Your task to perform on an android device: check storage Image 0: 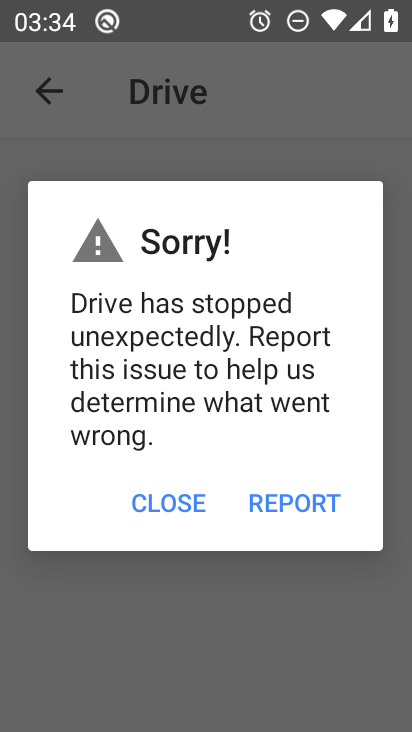
Step 0: press home button
Your task to perform on an android device: check storage Image 1: 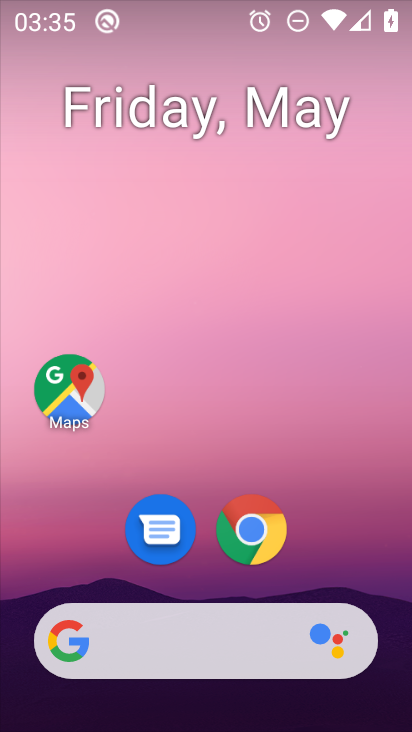
Step 1: drag from (384, 621) to (379, 242)
Your task to perform on an android device: check storage Image 2: 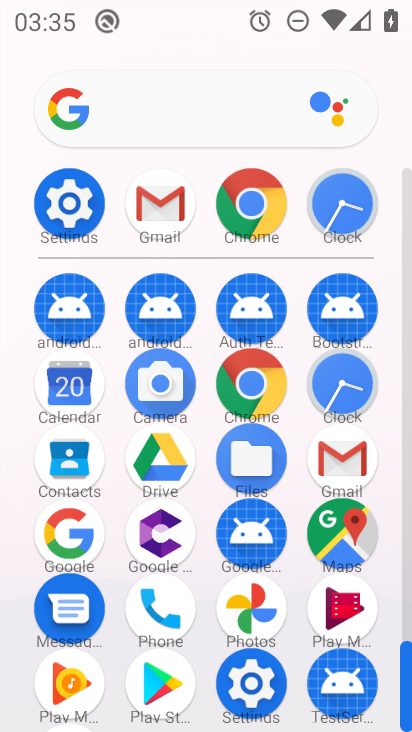
Step 2: click (71, 189)
Your task to perform on an android device: check storage Image 3: 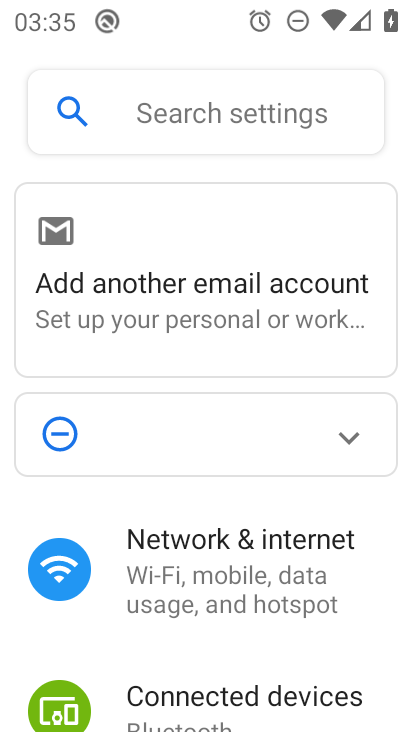
Step 3: drag from (385, 654) to (366, 312)
Your task to perform on an android device: check storage Image 4: 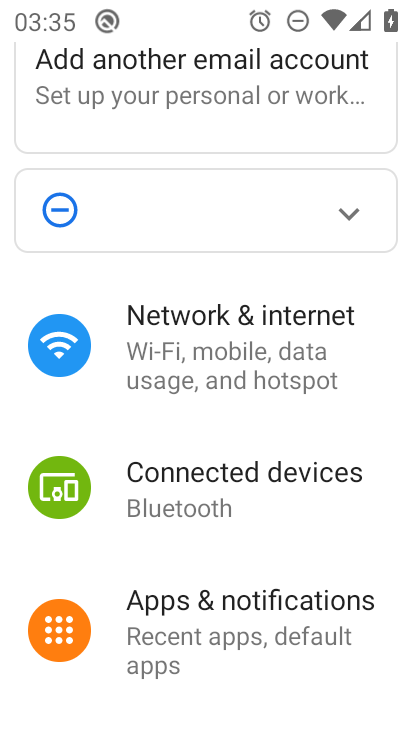
Step 4: drag from (383, 690) to (370, 243)
Your task to perform on an android device: check storage Image 5: 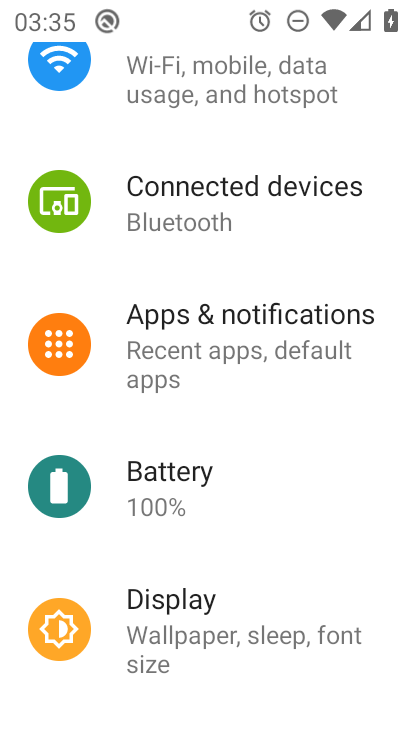
Step 5: drag from (318, 449) to (324, 289)
Your task to perform on an android device: check storage Image 6: 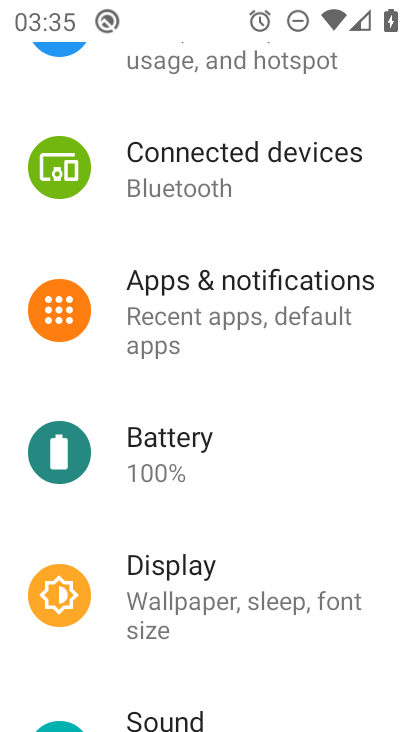
Step 6: drag from (234, 705) to (299, 375)
Your task to perform on an android device: check storage Image 7: 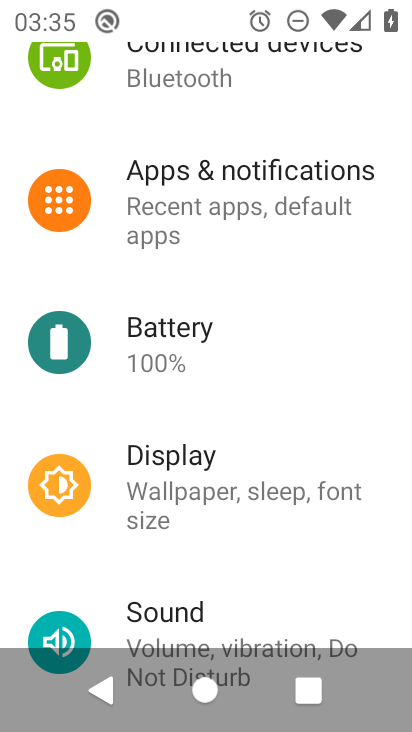
Step 7: drag from (278, 616) to (280, 266)
Your task to perform on an android device: check storage Image 8: 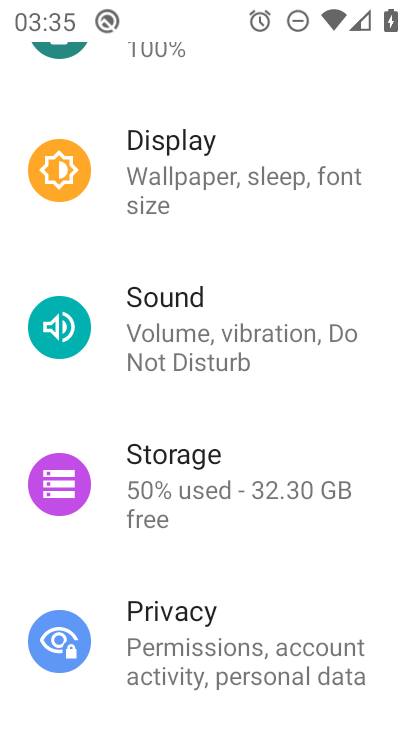
Step 8: click (173, 463)
Your task to perform on an android device: check storage Image 9: 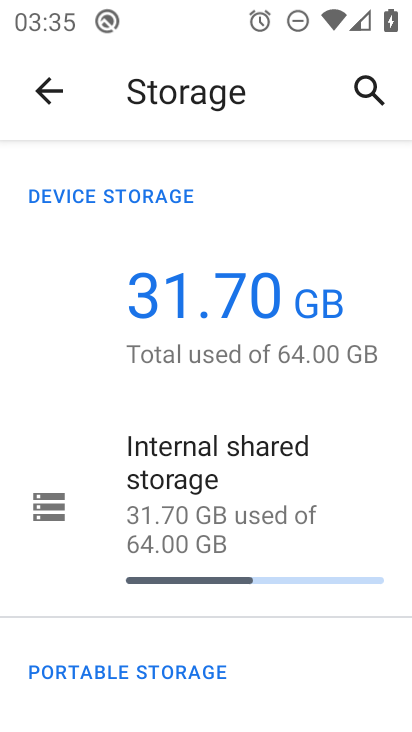
Step 9: task complete